Your task to perform on an android device: set the stopwatch Image 0: 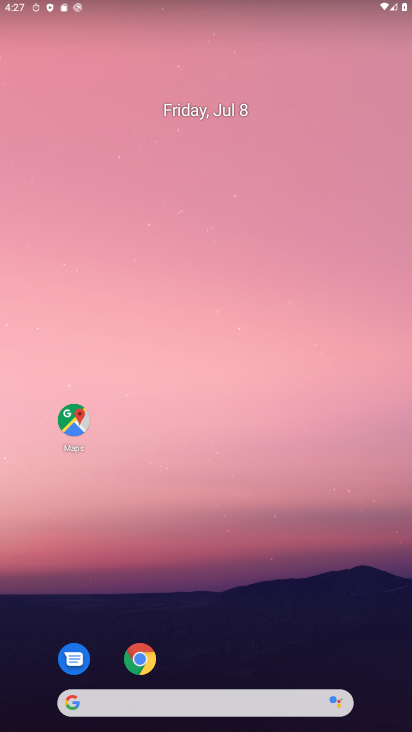
Step 0: drag from (261, 380) to (272, 138)
Your task to perform on an android device: set the stopwatch Image 1: 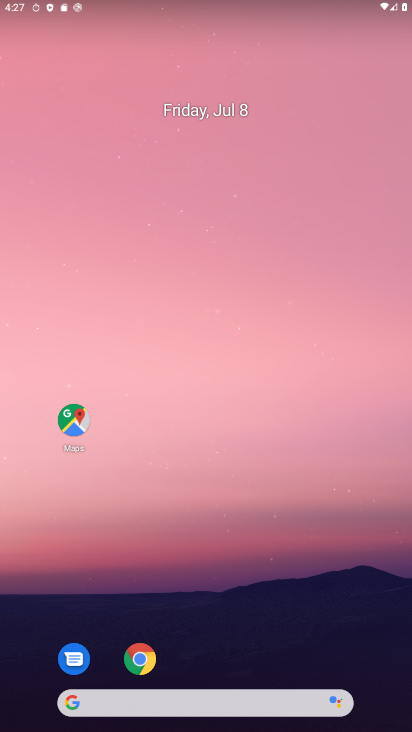
Step 1: drag from (258, 617) to (213, 114)
Your task to perform on an android device: set the stopwatch Image 2: 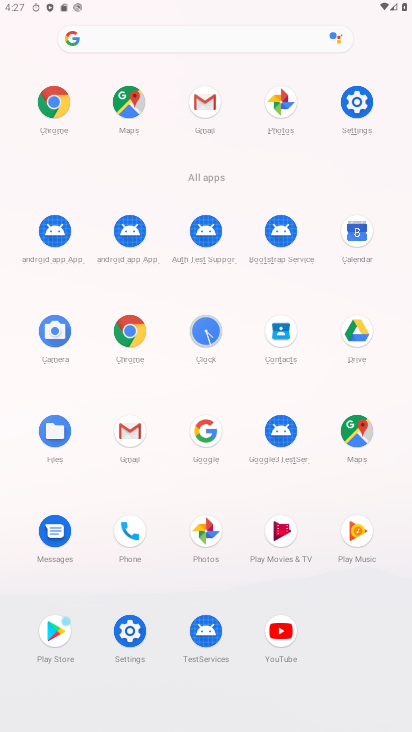
Step 2: click (207, 331)
Your task to perform on an android device: set the stopwatch Image 3: 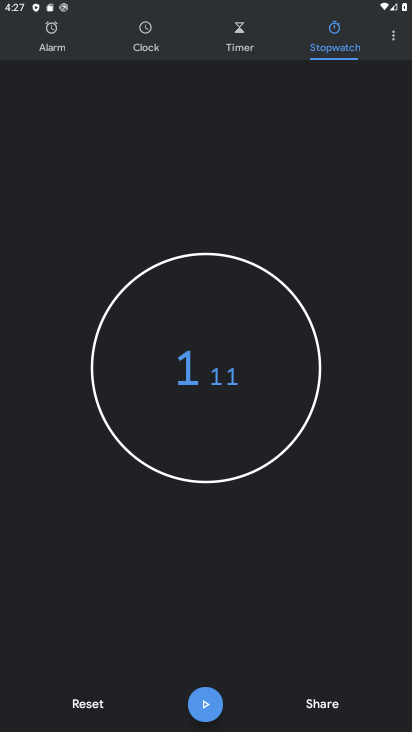
Step 3: task complete